Your task to perform on an android device: What's the weather going to be this weekend? Image 0: 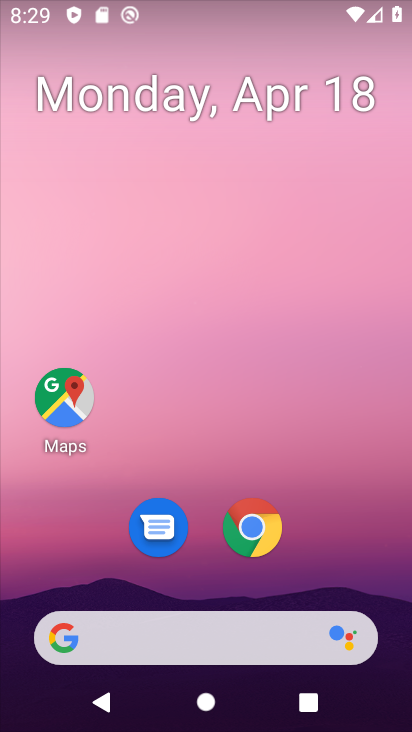
Step 0: drag from (353, 551) to (340, 48)
Your task to perform on an android device: What's the weather going to be this weekend? Image 1: 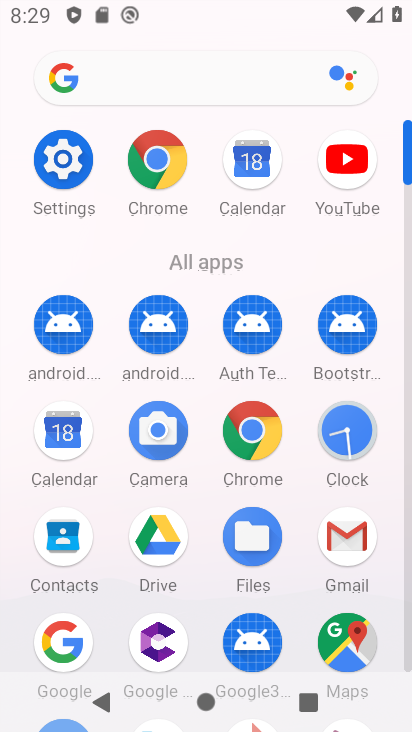
Step 1: drag from (302, 263) to (312, 28)
Your task to perform on an android device: What's the weather going to be this weekend? Image 2: 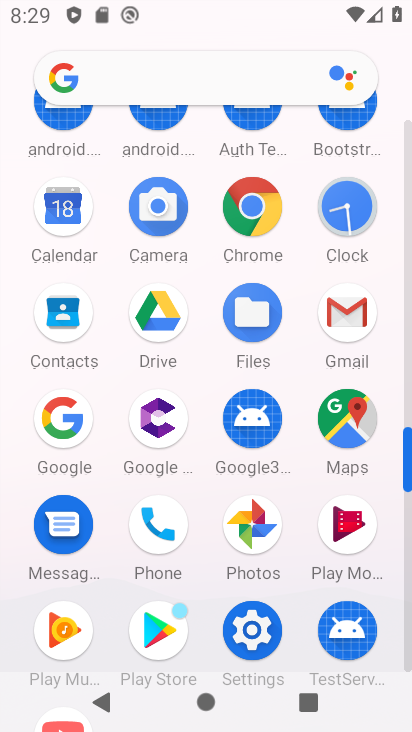
Step 2: drag from (298, 67) to (304, 21)
Your task to perform on an android device: What's the weather going to be this weekend? Image 3: 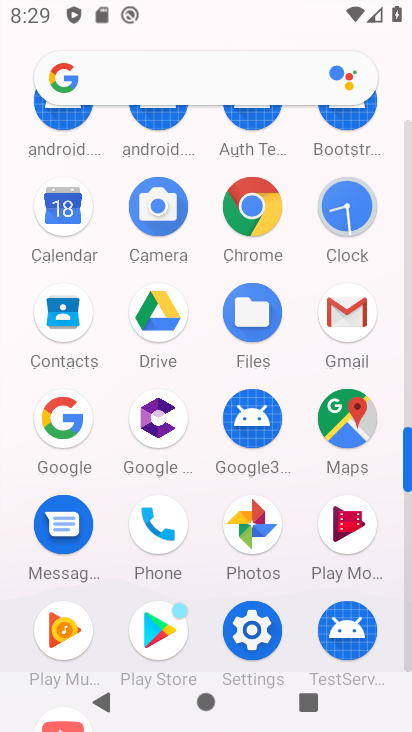
Step 3: click (263, 212)
Your task to perform on an android device: What's the weather going to be this weekend? Image 4: 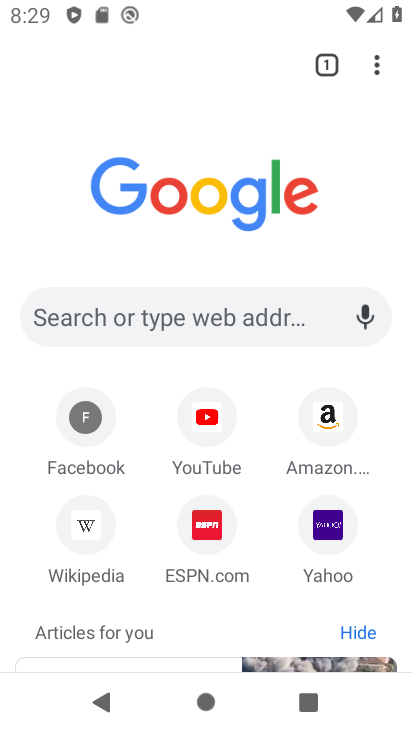
Step 4: click (271, 321)
Your task to perform on an android device: What's the weather going to be this weekend? Image 5: 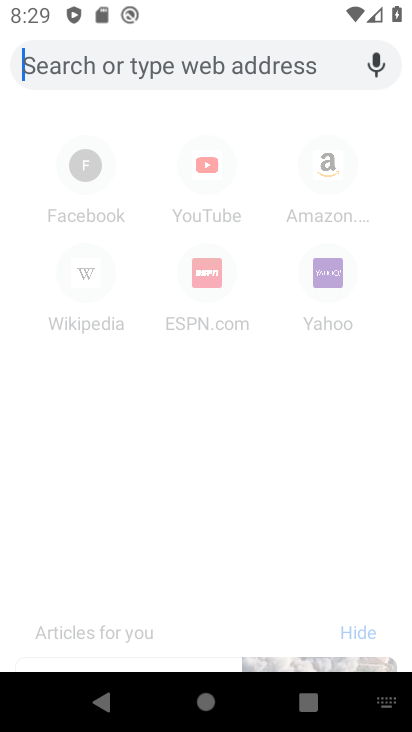
Step 5: type "What's the weather going to be this weekend"
Your task to perform on an android device: What's the weather going to be this weekend? Image 6: 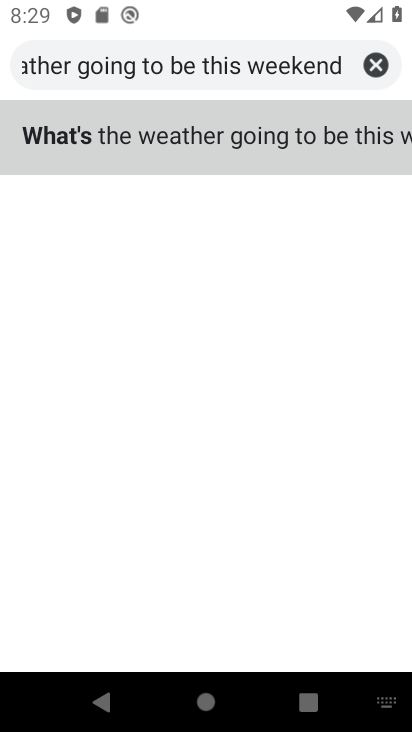
Step 6: click (190, 135)
Your task to perform on an android device: What's the weather going to be this weekend? Image 7: 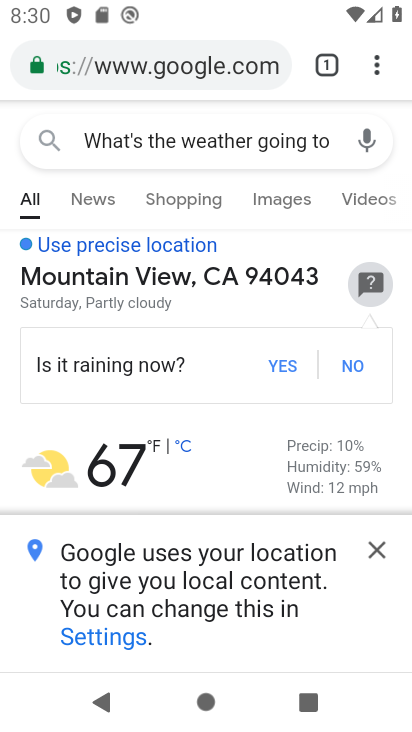
Step 7: click (378, 553)
Your task to perform on an android device: What's the weather going to be this weekend? Image 8: 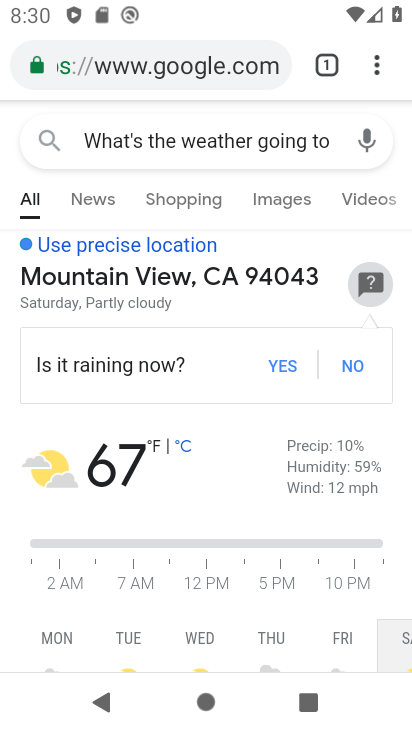
Step 8: task complete